Your task to perform on an android device: Open Google Chrome Image 0: 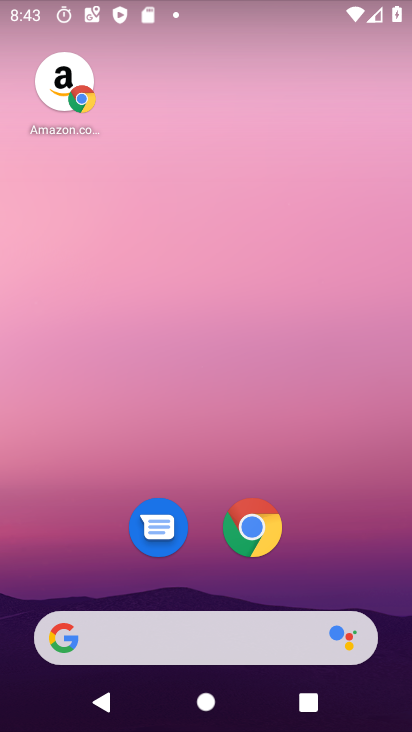
Step 0: drag from (331, 597) to (246, 45)
Your task to perform on an android device: Open Google Chrome Image 1: 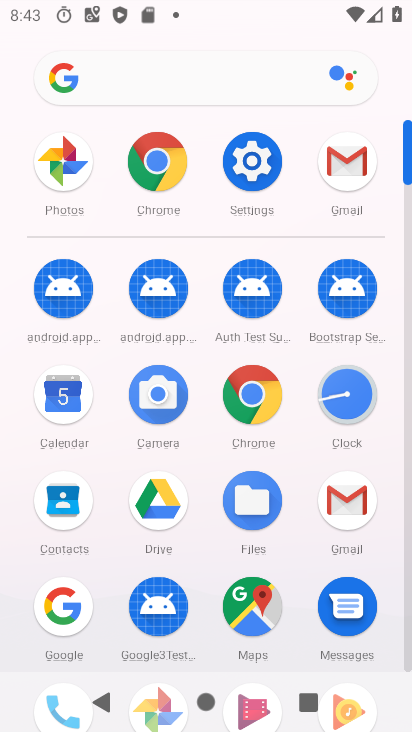
Step 1: click (163, 157)
Your task to perform on an android device: Open Google Chrome Image 2: 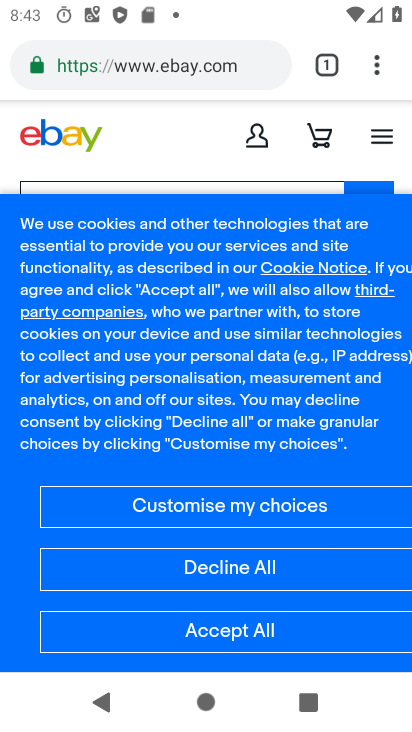
Step 2: task complete